Your task to perform on an android device: turn off picture-in-picture Image 0: 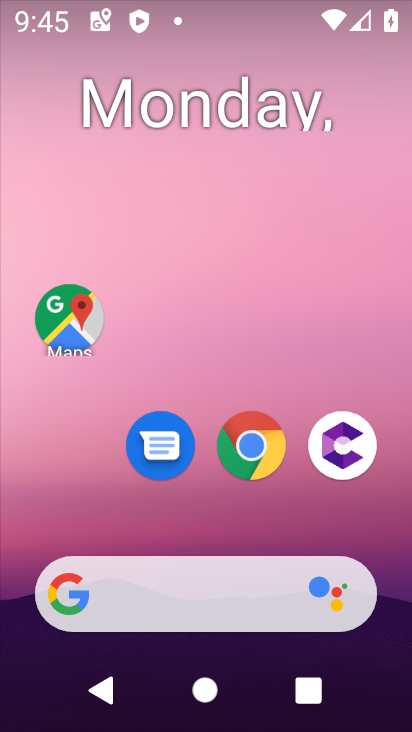
Step 0: press home button
Your task to perform on an android device: turn off picture-in-picture Image 1: 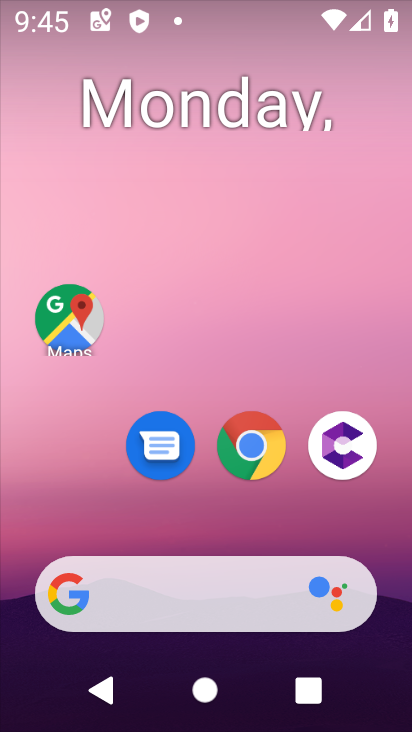
Step 1: click (253, 454)
Your task to perform on an android device: turn off picture-in-picture Image 2: 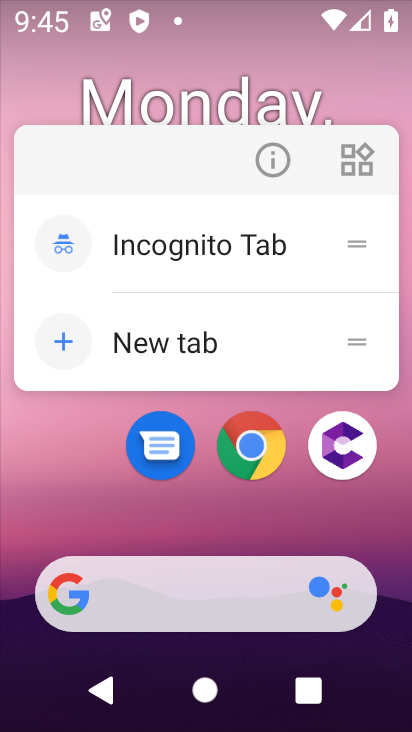
Step 2: click (268, 167)
Your task to perform on an android device: turn off picture-in-picture Image 3: 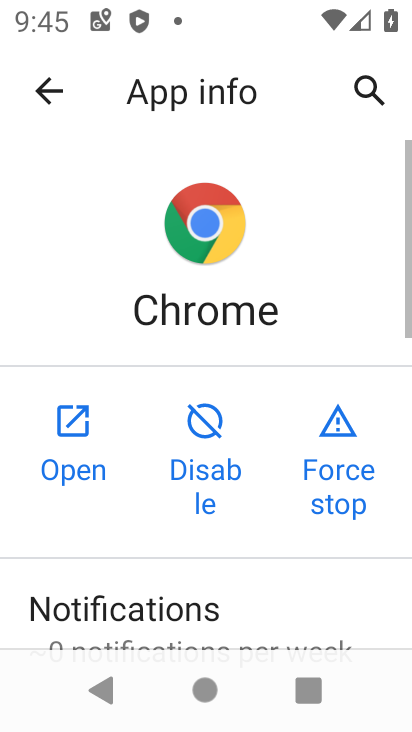
Step 3: drag from (313, 607) to (273, 153)
Your task to perform on an android device: turn off picture-in-picture Image 4: 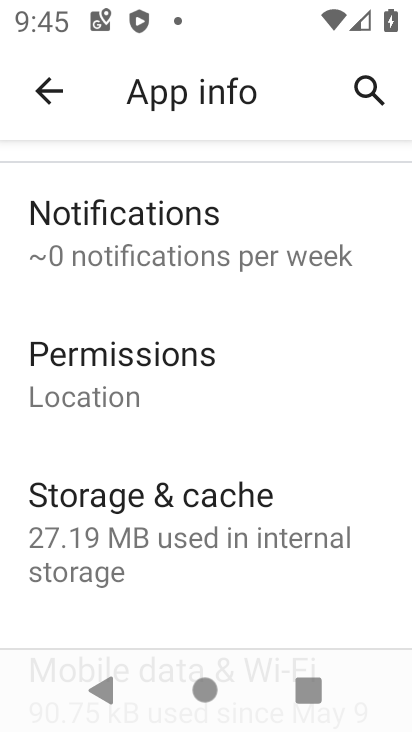
Step 4: drag from (244, 583) to (248, 111)
Your task to perform on an android device: turn off picture-in-picture Image 5: 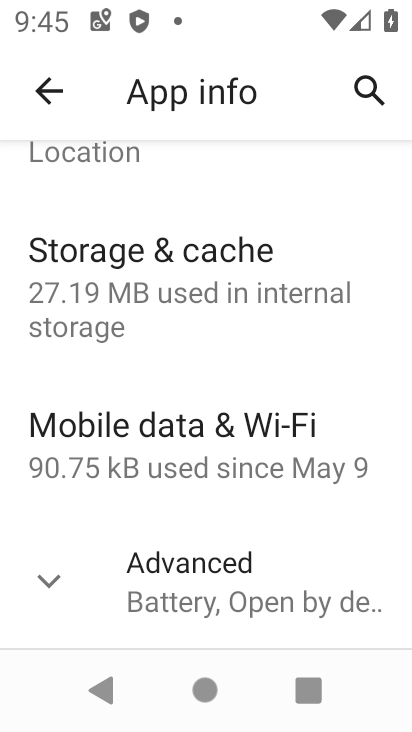
Step 5: click (199, 587)
Your task to perform on an android device: turn off picture-in-picture Image 6: 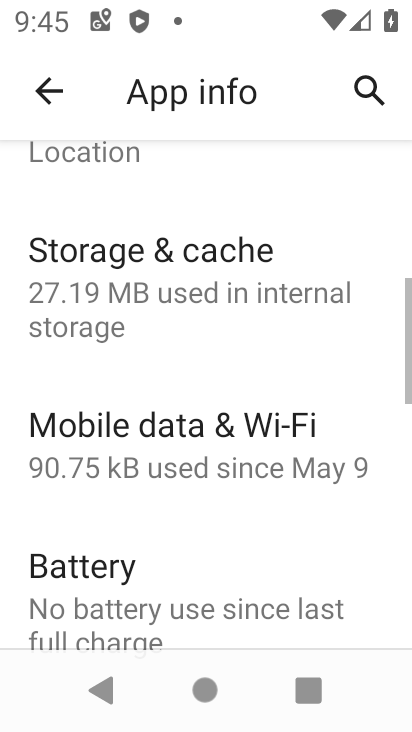
Step 6: drag from (238, 549) to (243, 141)
Your task to perform on an android device: turn off picture-in-picture Image 7: 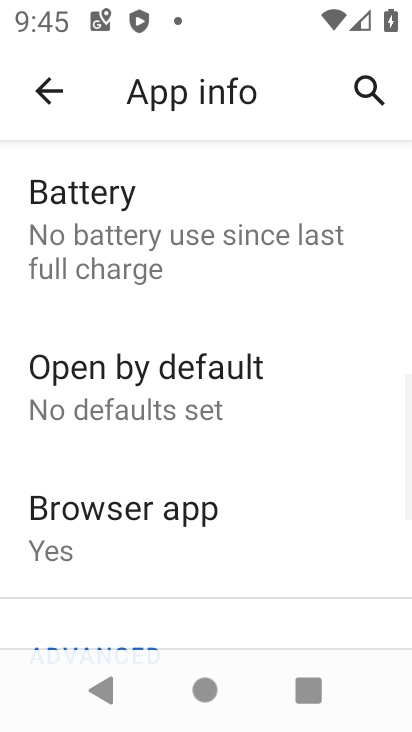
Step 7: drag from (297, 529) to (273, 172)
Your task to perform on an android device: turn off picture-in-picture Image 8: 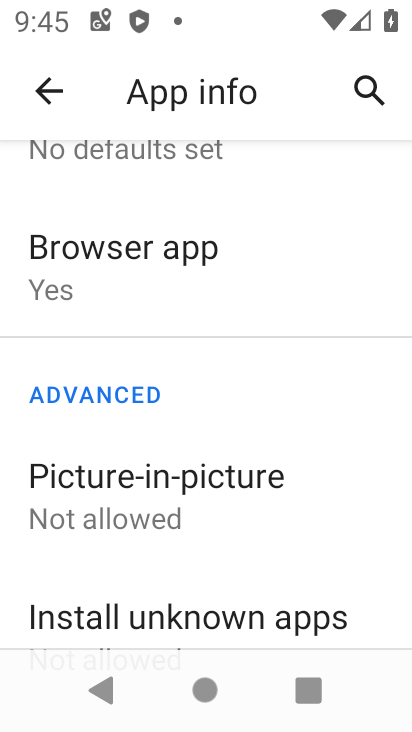
Step 8: click (159, 488)
Your task to perform on an android device: turn off picture-in-picture Image 9: 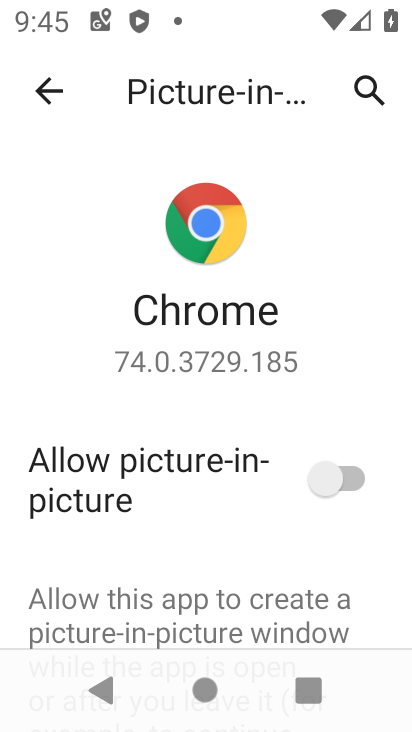
Step 9: task complete